Your task to perform on an android device: move an email to a new category in the gmail app Image 0: 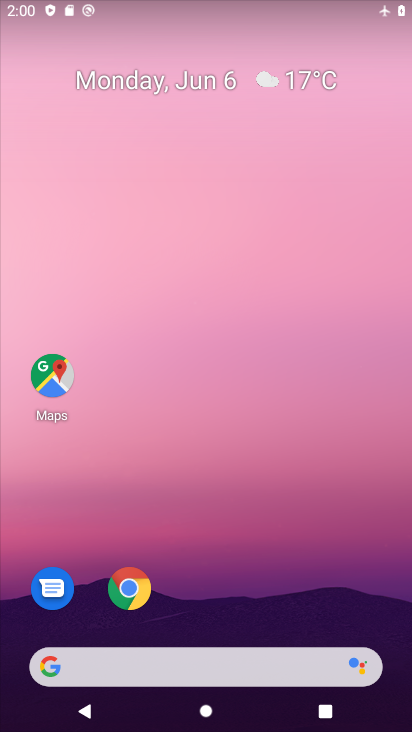
Step 0: drag from (195, 685) to (309, 116)
Your task to perform on an android device: move an email to a new category in the gmail app Image 1: 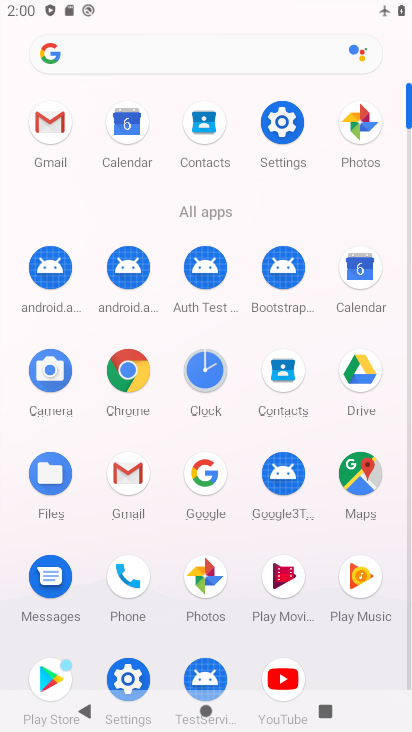
Step 1: click (41, 110)
Your task to perform on an android device: move an email to a new category in the gmail app Image 2: 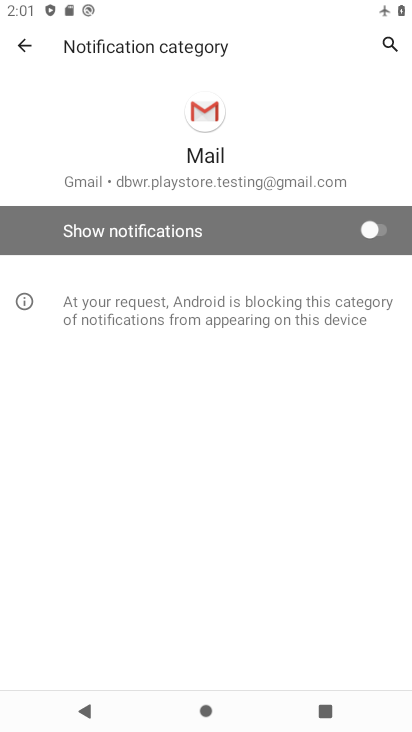
Step 2: click (19, 47)
Your task to perform on an android device: move an email to a new category in the gmail app Image 3: 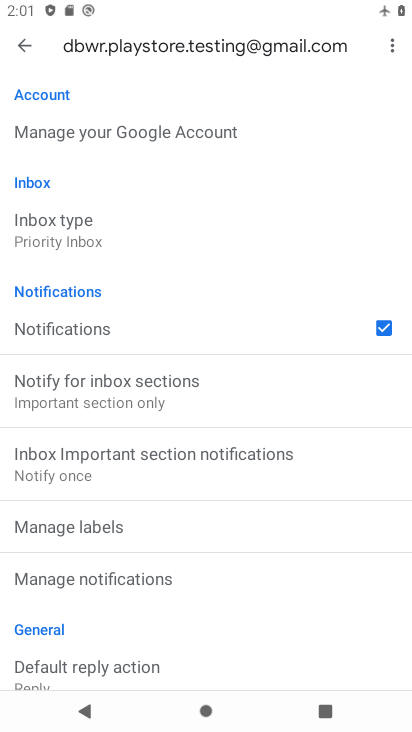
Step 3: click (30, 30)
Your task to perform on an android device: move an email to a new category in the gmail app Image 4: 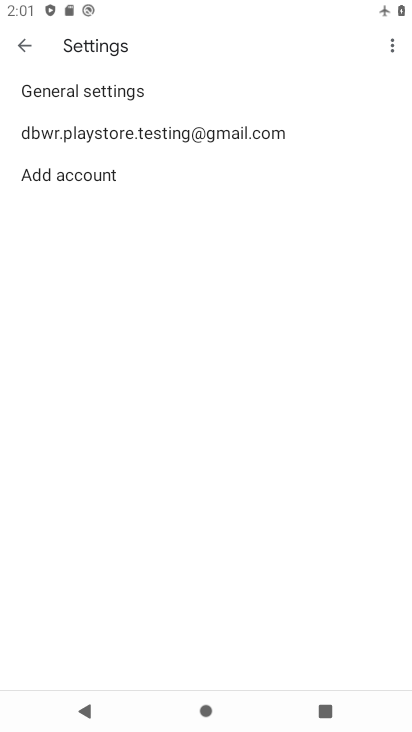
Step 4: click (18, 43)
Your task to perform on an android device: move an email to a new category in the gmail app Image 5: 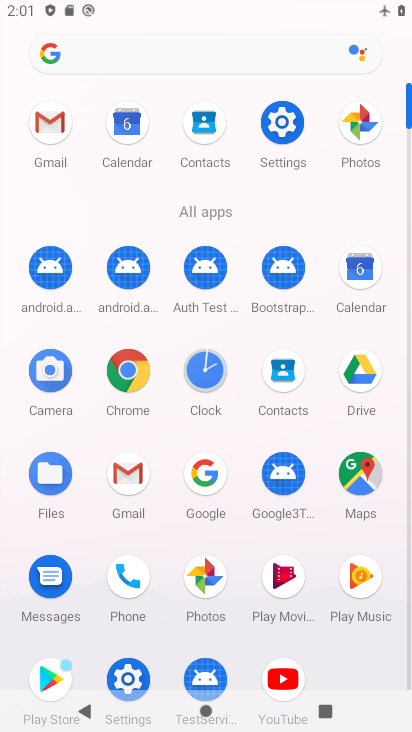
Step 5: click (47, 99)
Your task to perform on an android device: move an email to a new category in the gmail app Image 6: 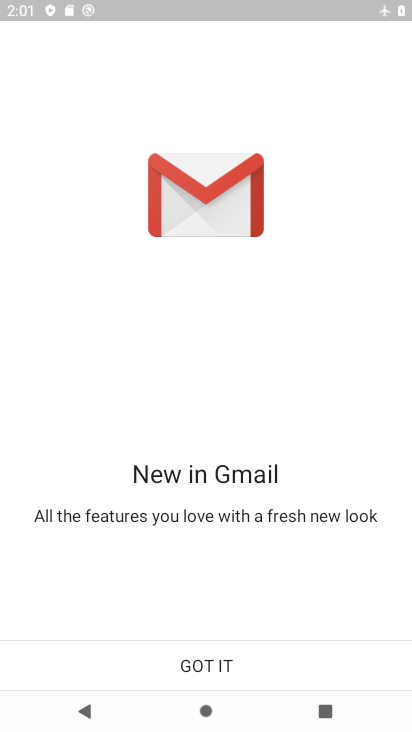
Step 6: click (237, 655)
Your task to perform on an android device: move an email to a new category in the gmail app Image 7: 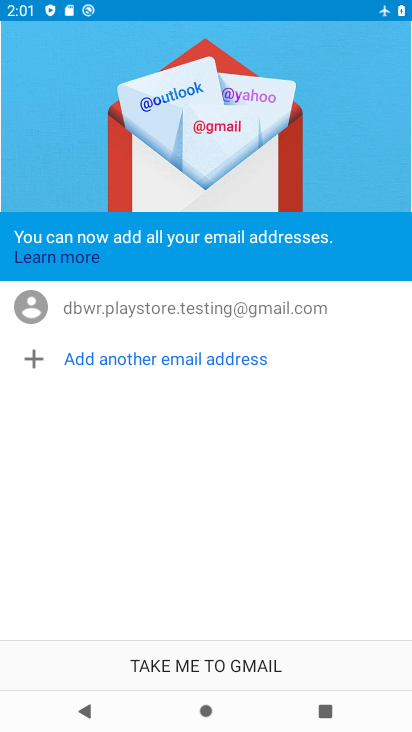
Step 7: click (237, 654)
Your task to perform on an android device: move an email to a new category in the gmail app Image 8: 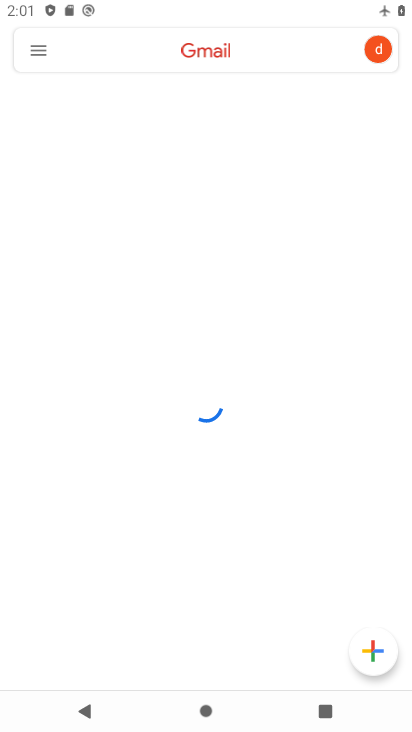
Step 8: click (47, 43)
Your task to perform on an android device: move an email to a new category in the gmail app Image 9: 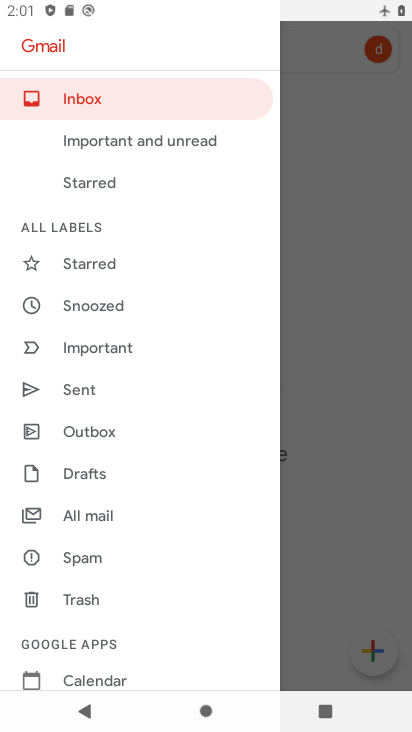
Step 9: click (125, 519)
Your task to perform on an android device: move an email to a new category in the gmail app Image 10: 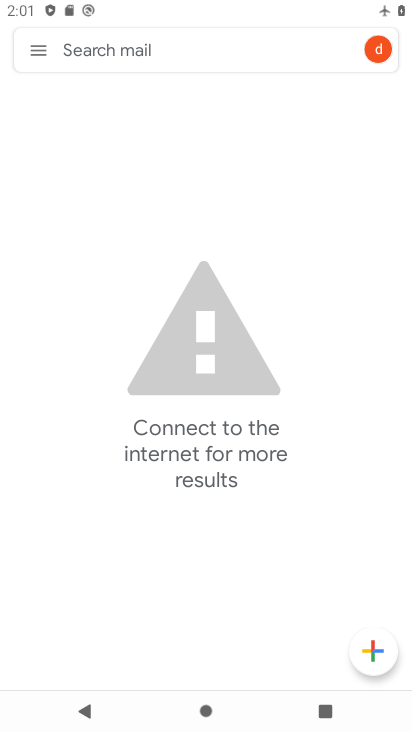
Step 10: task complete